Your task to perform on an android device: add a contact Image 0: 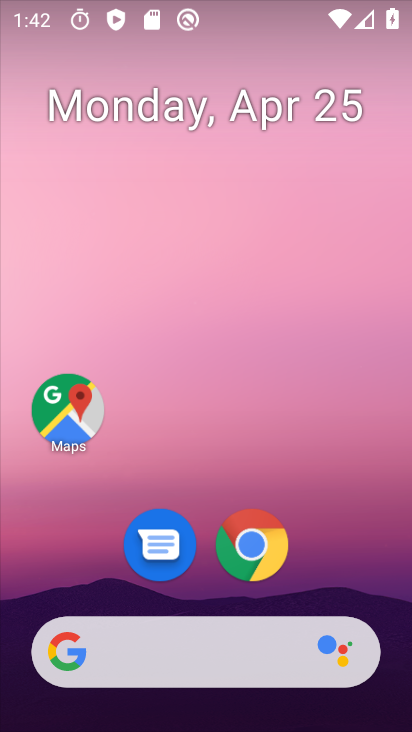
Step 0: drag from (329, 547) to (286, 125)
Your task to perform on an android device: add a contact Image 1: 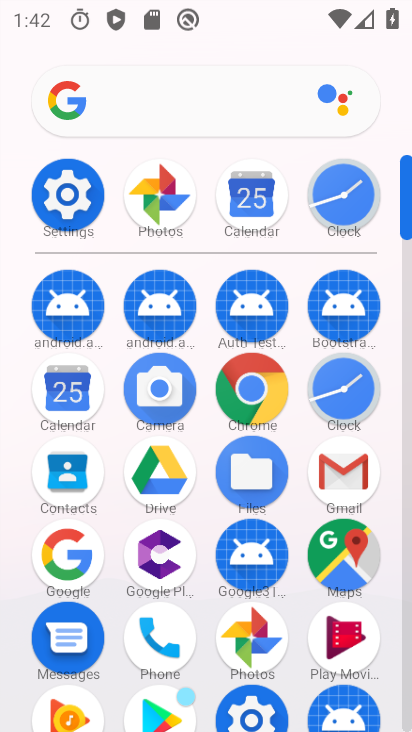
Step 1: click (64, 480)
Your task to perform on an android device: add a contact Image 2: 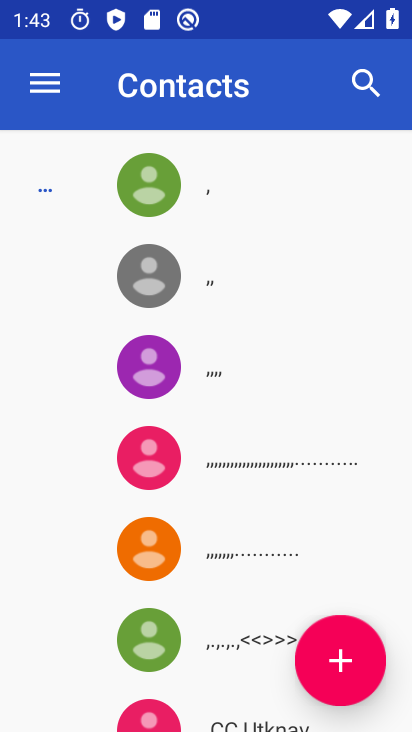
Step 2: click (360, 645)
Your task to perform on an android device: add a contact Image 3: 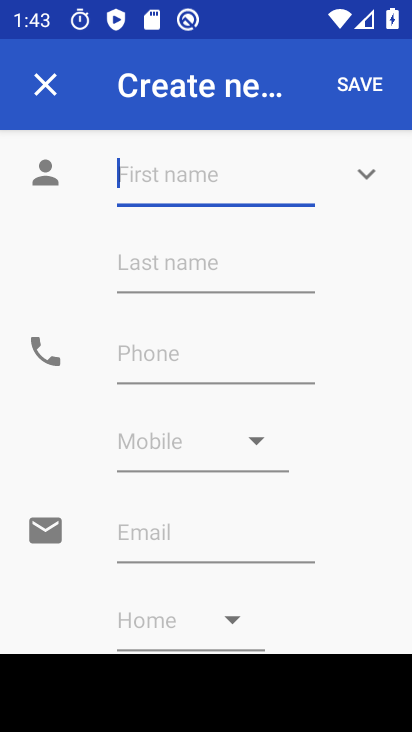
Step 3: type "rsdj"
Your task to perform on an android device: add a contact Image 4: 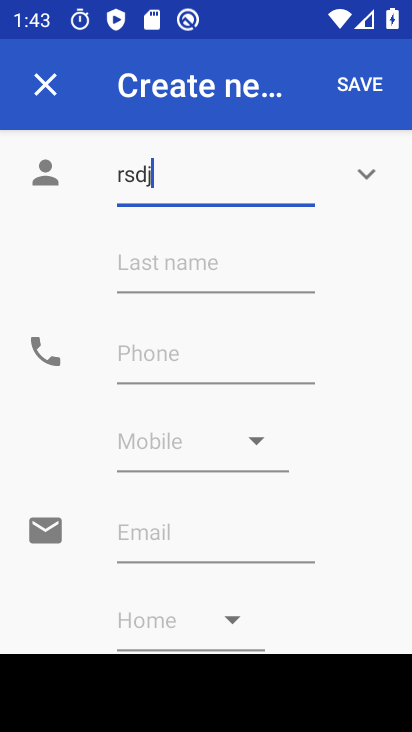
Step 4: click (175, 360)
Your task to perform on an android device: add a contact Image 5: 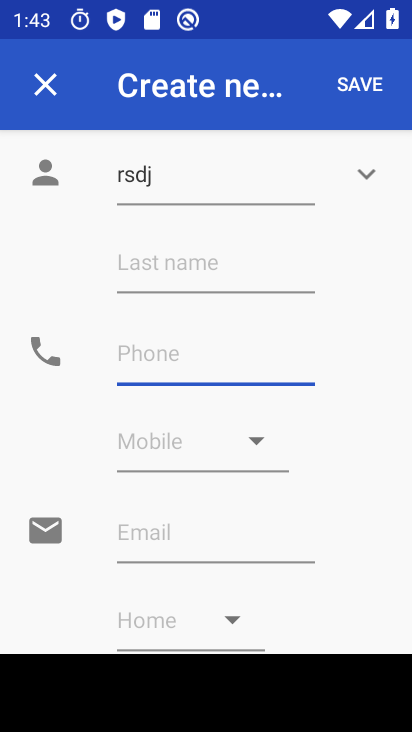
Step 5: type "87756778766"
Your task to perform on an android device: add a contact Image 6: 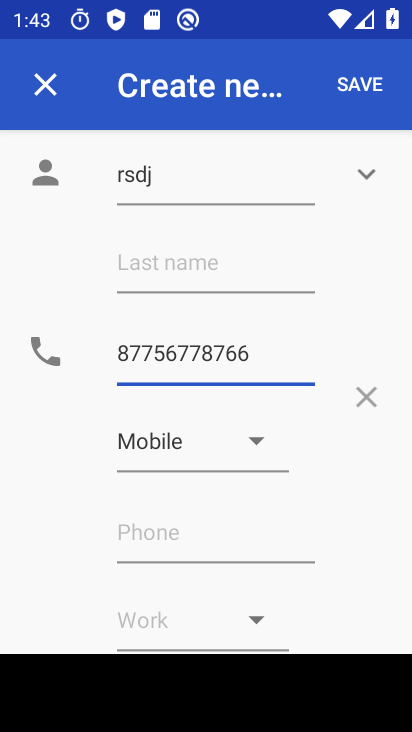
Step 6: click (355, 87)
Your task to perform on an android device: add a contact Image 7: 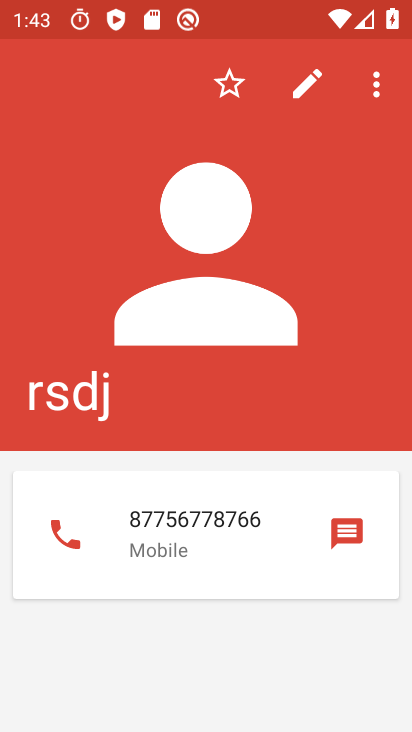
Step 7: task complete